Your task to perform on an android device: turn on sleep mode Image 0: 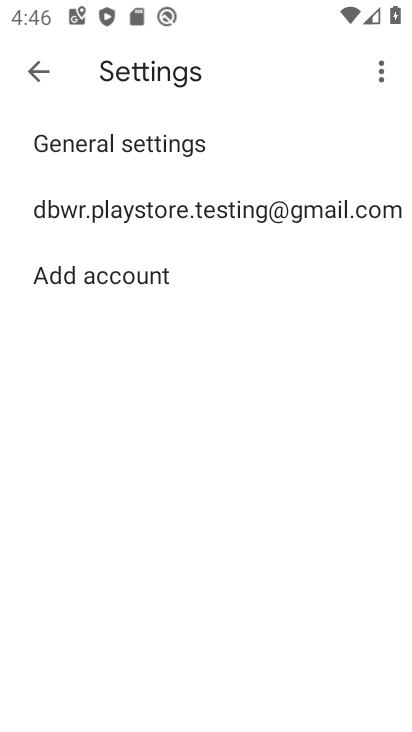
Step 0: press home button
Your task to perform on an android device: turn on sleep mode Image 1: 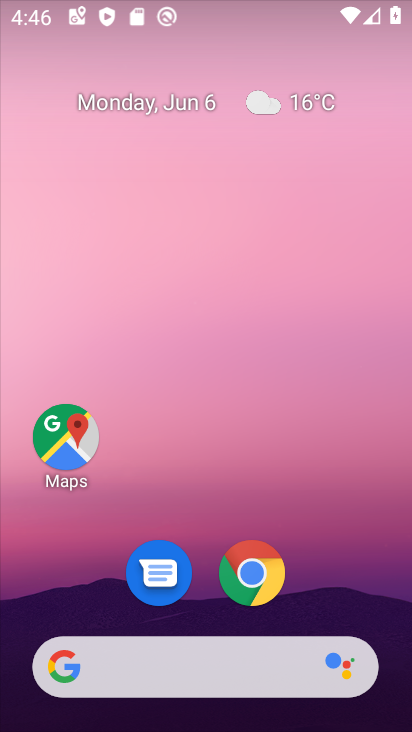
Step 1: drag from (335, 606) to (238, 106)
Your task to perform on an android device: turn on sleep mode Image 2: 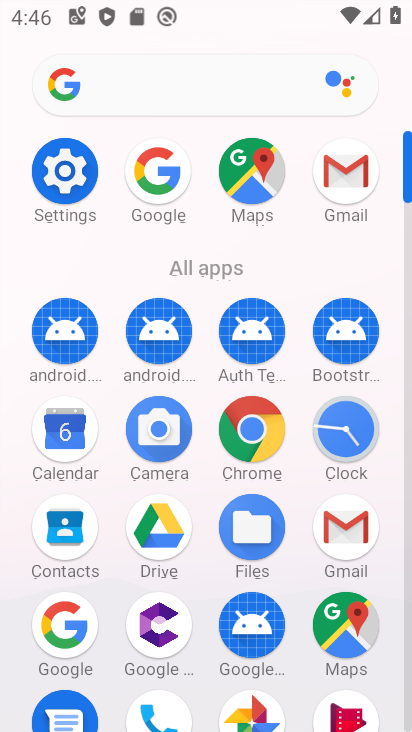
Step 2: click (64, 175)
Your task to perform on an android device: turn on sleep mode Image 3: 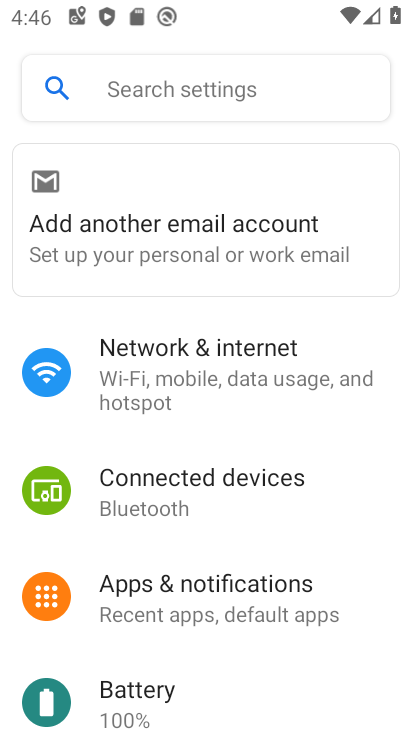
Step 3: drag from (214, 669) to (305, 428)
Your task to perform on an android device: turn on sleep mode Image 4: 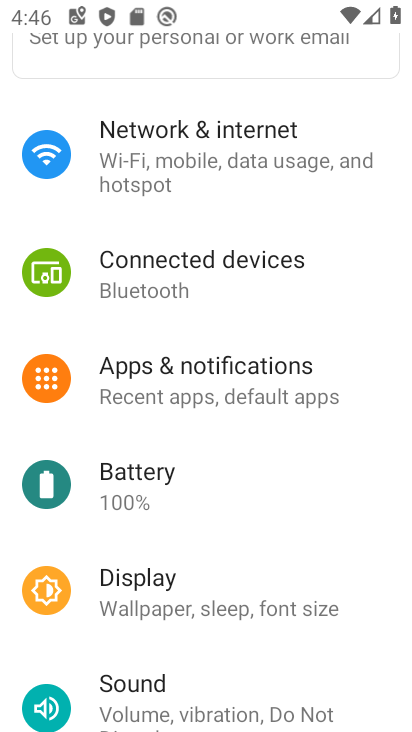
Step 4: click (259, 604)
Your task to perform on an android device: turn on sleep mode Image 5: 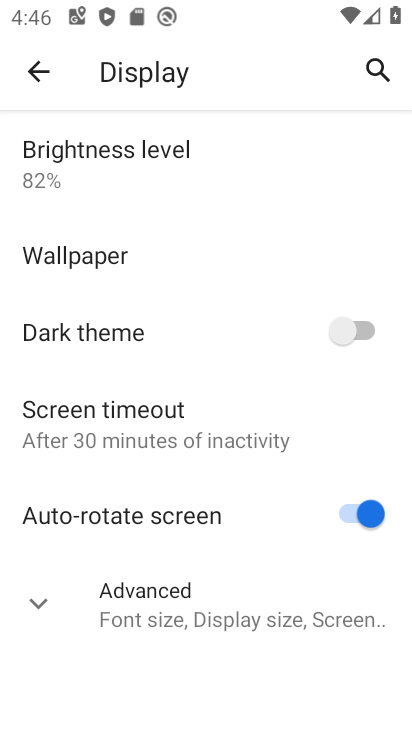
Step 5: click (228, 607)
Your task to perform on an android device: turn on sleep mode Image 6: 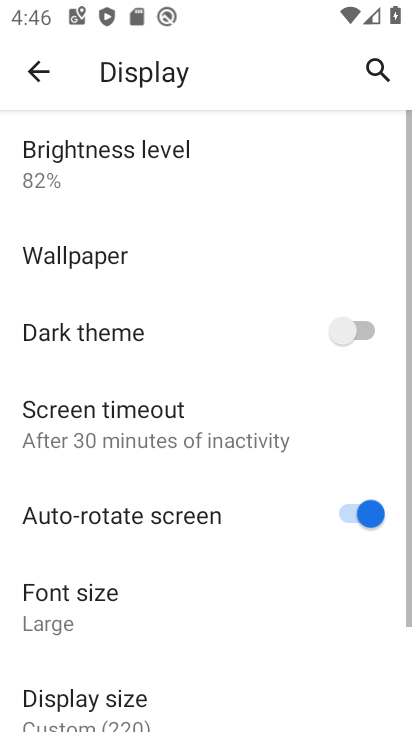
Step 6: click (178, 435)
Your task to perform on an android device: turn on sleep mode Image 7: 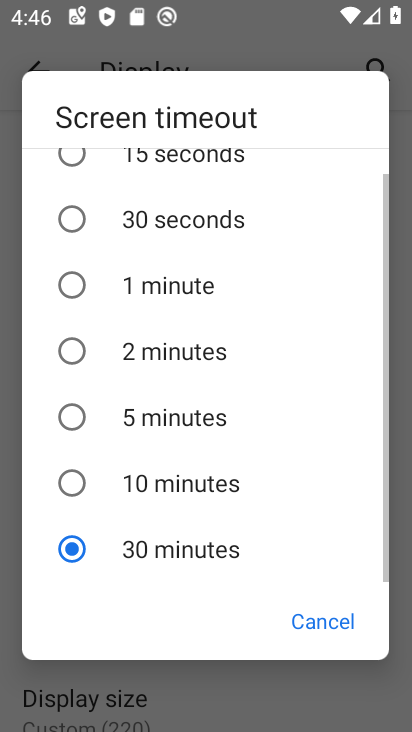
Step 7: task complete